Your task to perform on an android device: turn on wifi Image 0: 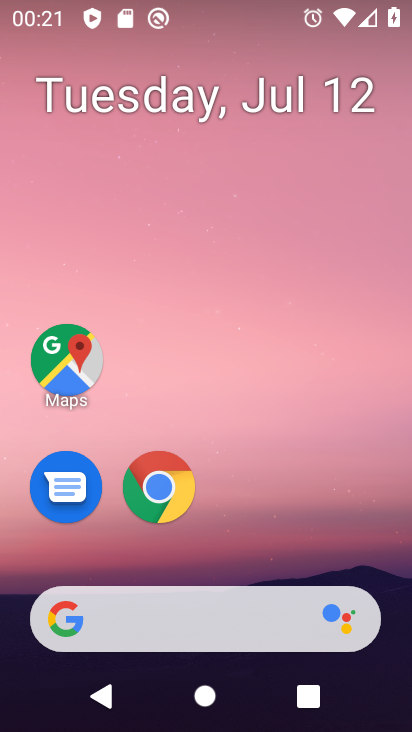
Step 0: drag from (353, 534) to (382, 148)
Your task to perform on an android device: turn on wifi Image 1: 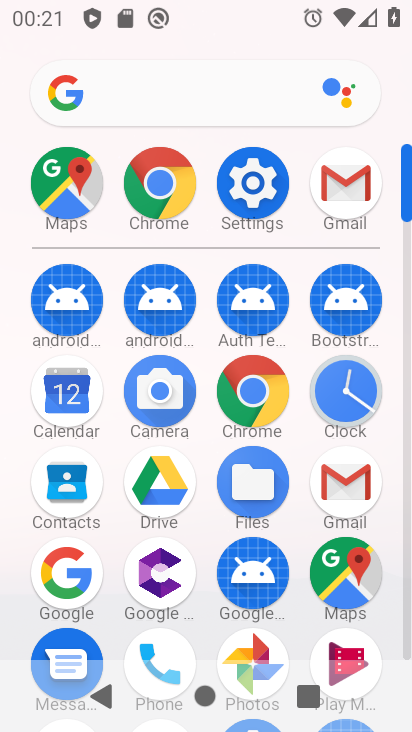
Step 1: click (267, 192)
Your task to perform on an android device: turn on wifi Image 2: 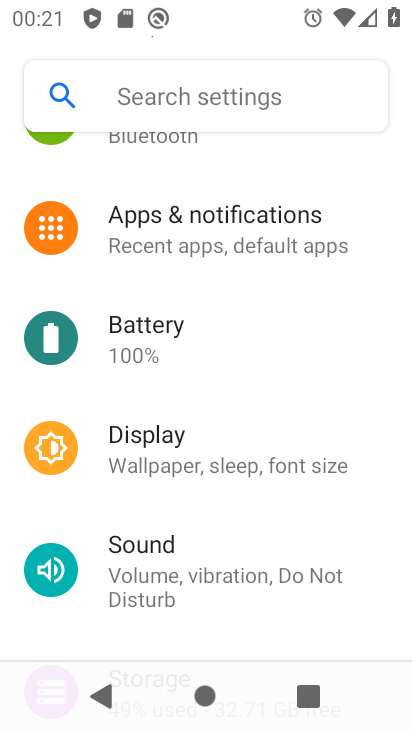
Step 2: drag from (353, 309) to (357, 403)
Your task to perform on an android device: turn on wifi Image 3: 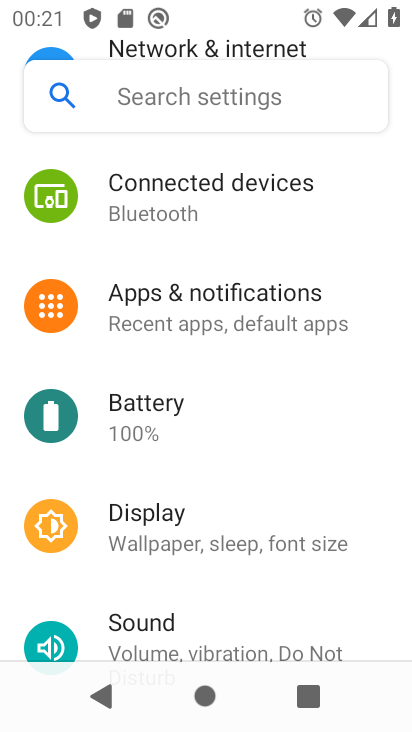
Step 3: drag from (364, 288) to (362, 428)
Your task to perform on an android device: turn on wifi Image 4: 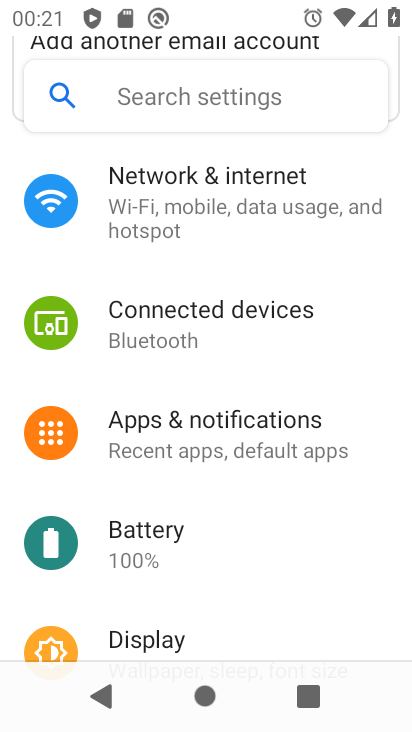
Step 4: drag from (364, 264) to (365, 406)
Your task to perform on an android device: turn on wifi Image 5: 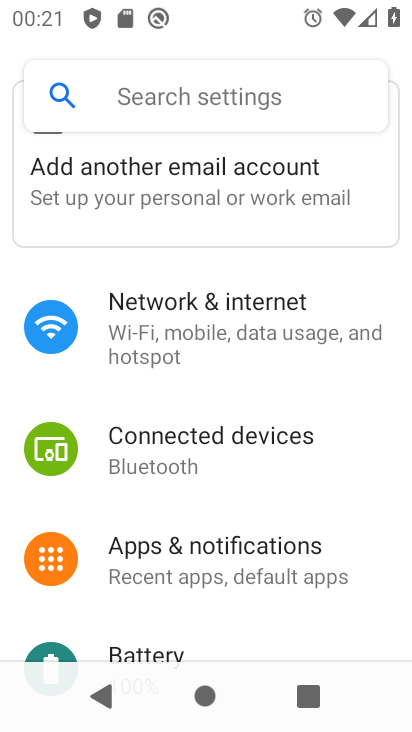
Step 5: drag from (355, 288) to (361, 429)
Your task to perform on an android device: turn on wifi Image 6: 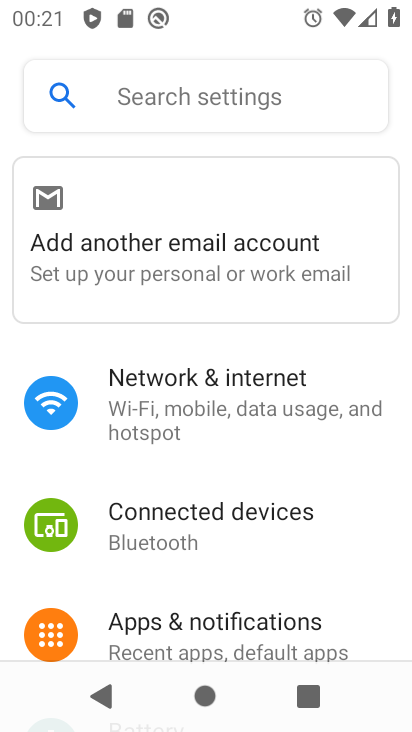
Step 6: click (307, 412)
Your task to perform on an android device: turn on wifi Image 7: 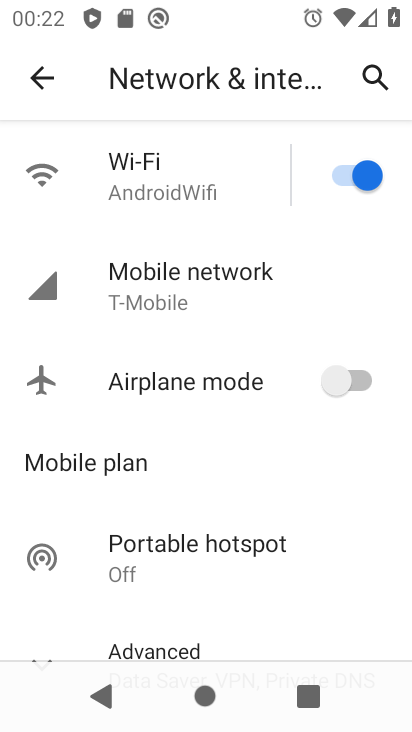
Step 7: task complete